Your task to perform on an android device: turn off location history Image 0: 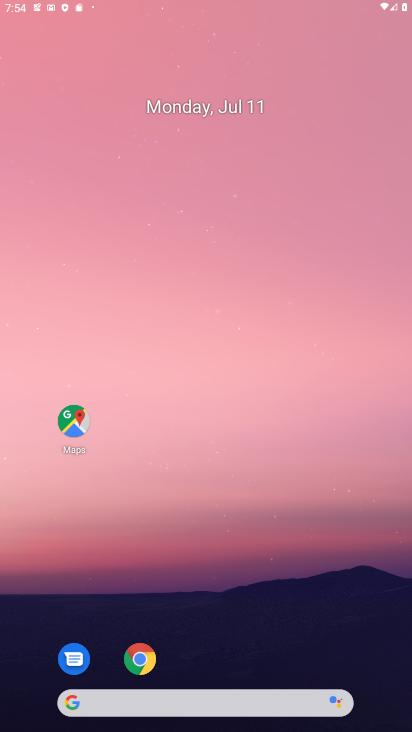
Step 0: drag from (241, 515) to (229, 16)
Your task to perform on an android device: turn off location history Image 1: 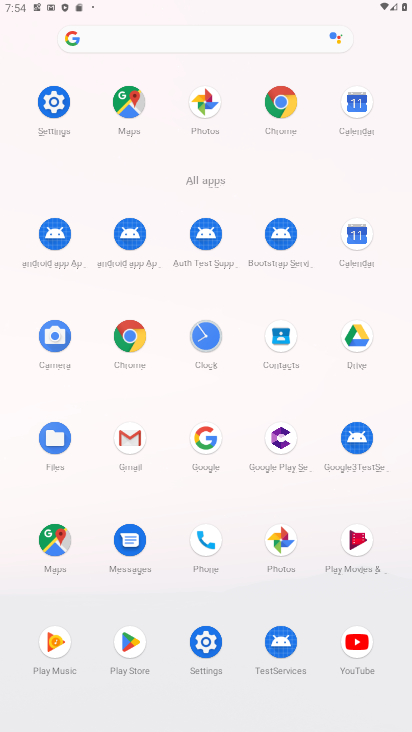
Step 1: click (202, 650)
Your task to perform on an android device: turn off location history Image 2: 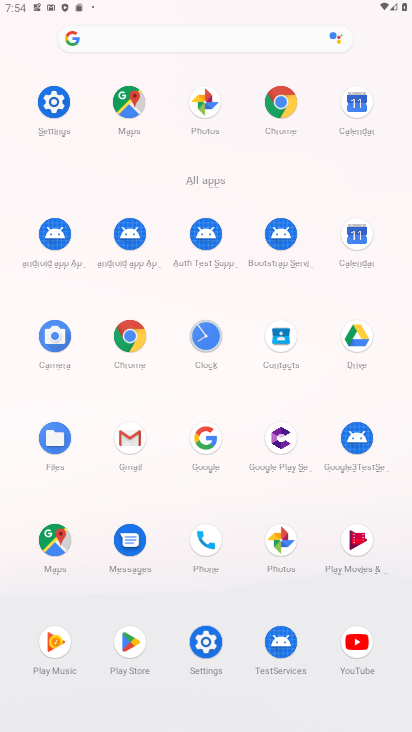
Step 2: click (203, 646)
Your task to perform on an android device: turn off location history Image 3: 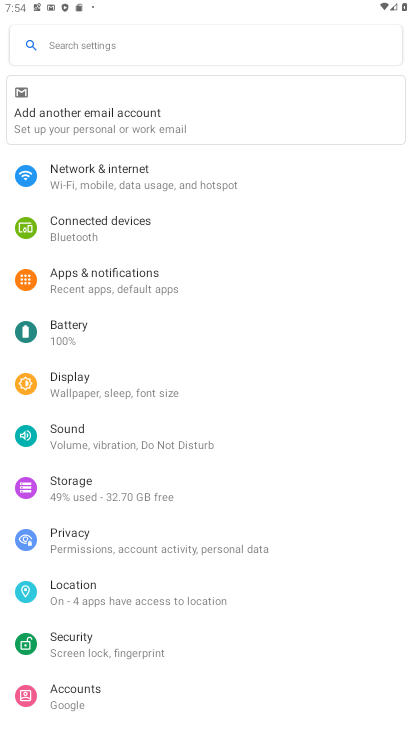
Step 3: drag from (89, 449) to (90, 97)
Your task to perform on an android device: turn off location history Image 4: 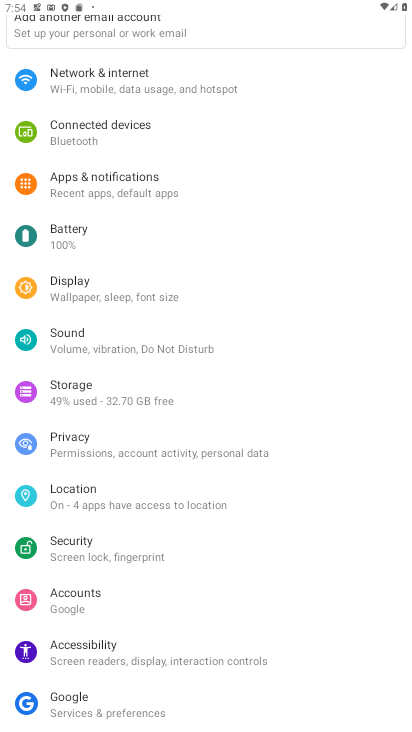
Step 4: drag from (100, 591) to (123, 216)
Your task to perform on an android device: turn off location history Image 5: 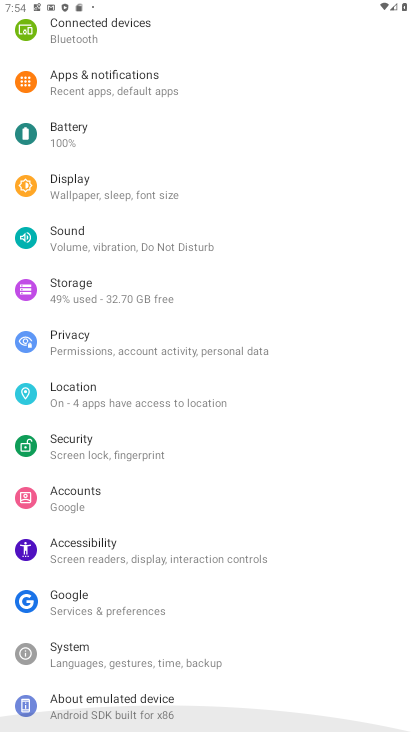
Step 5: drag from (172, 525) to (186, 260)
Your task to perform on an android device: turn off location history Image 6: 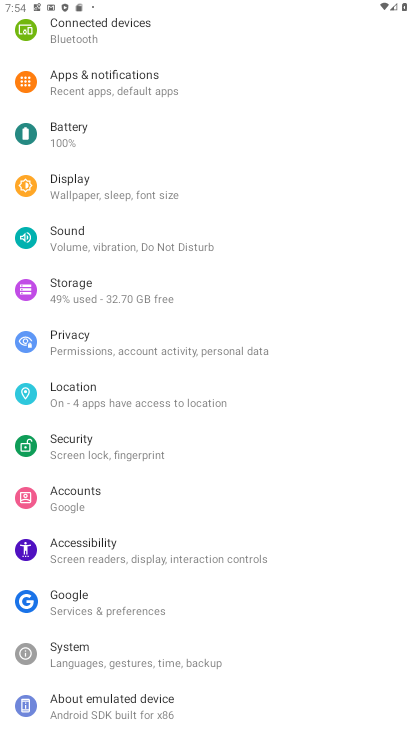
Step 6: click (84, 388)
Your task to perform on an android device: turn off location history Image 7: 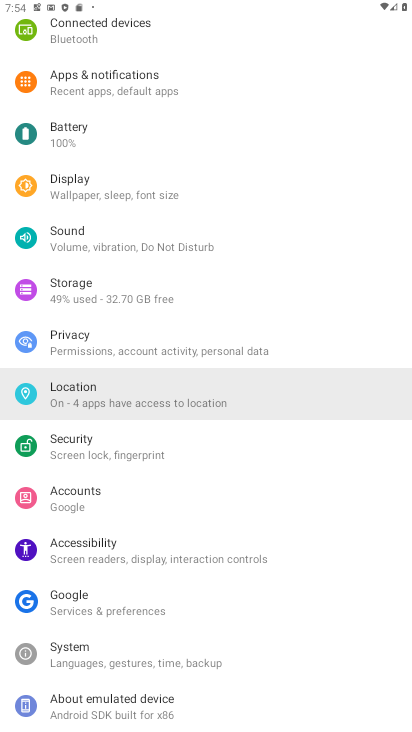
Step 7: click (89, 398)
Your task to perform on an android device: turn off location history Image 8: 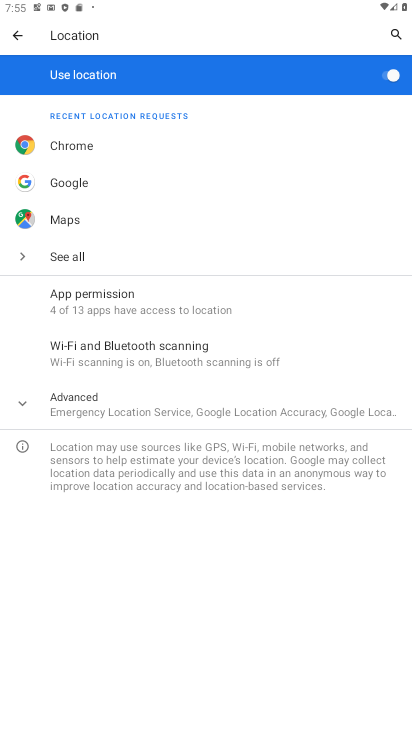
Step 8: click (82, 402)
Your task to perform on an android device: turn off location history Image 9: 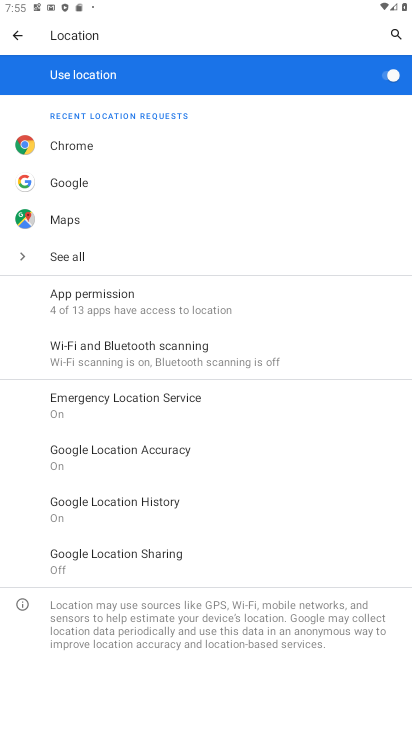
Step 9: click (120, 503)
Your task to perform on an android device: turn off location history Image 10: 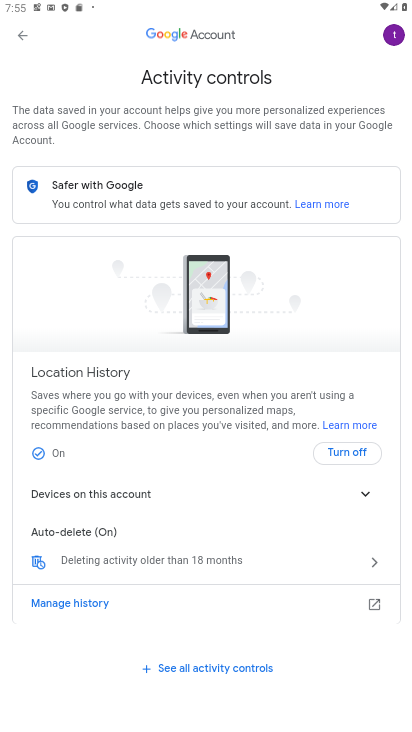
Step 10: drag from (243, 515) to (203, 110)
Your task to perform on an android device: turn off location history Image 11: 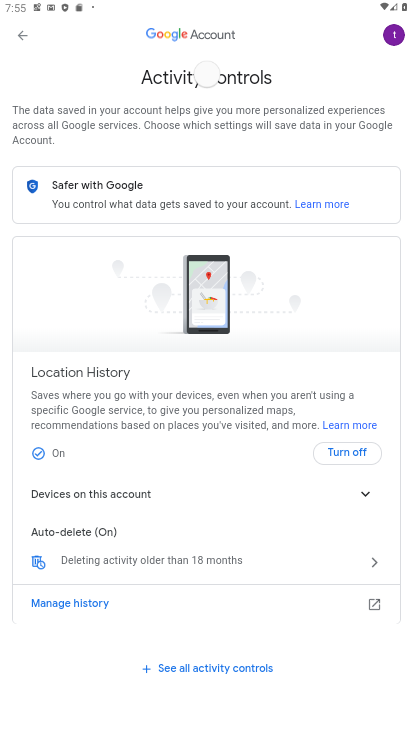
Step 11: drag from (178, 423) to (188, 219)
Your task to perform on an android device: turn off location history Image 12: 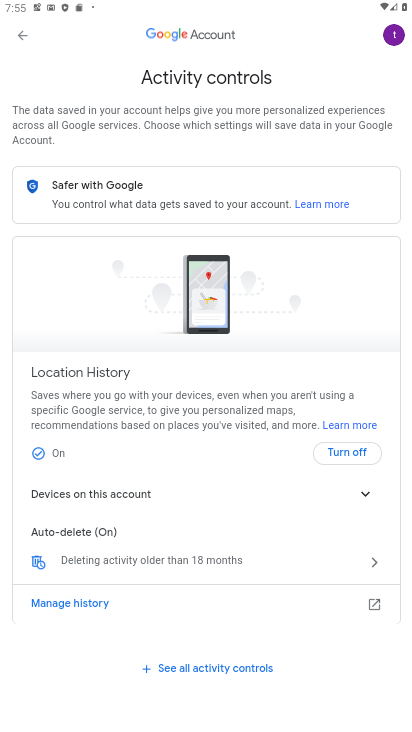
Step 12: click (364, 487)
Your task to perform on an android device: turn off location history Image 13: 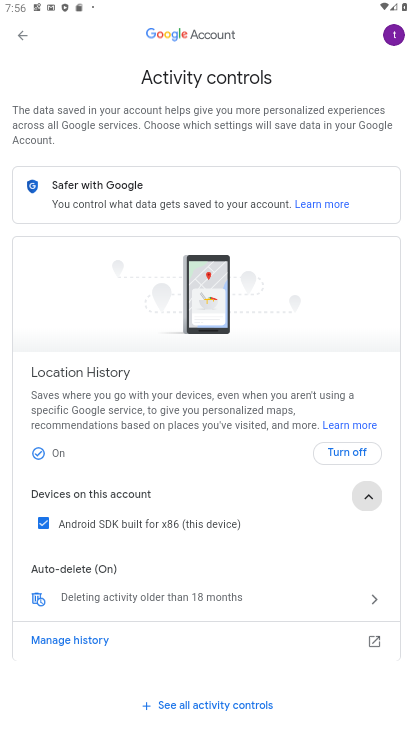
Step 13: click (105, 557)
Your task to perform on an android device: turn off location history Image 14: 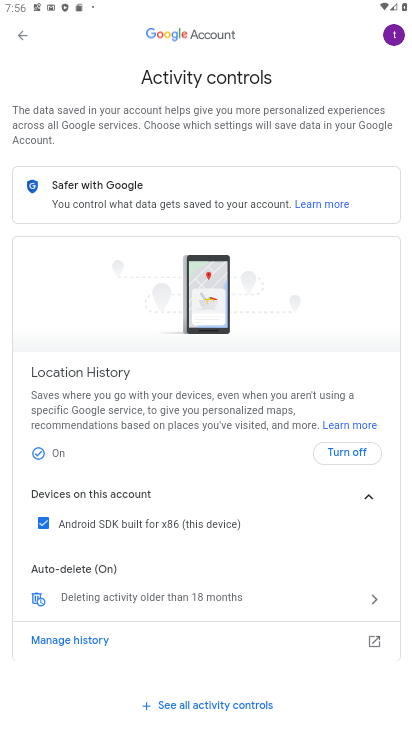
Step 14: click (108, 561)
Your task to perform on an android device: turn off location history Image 15: 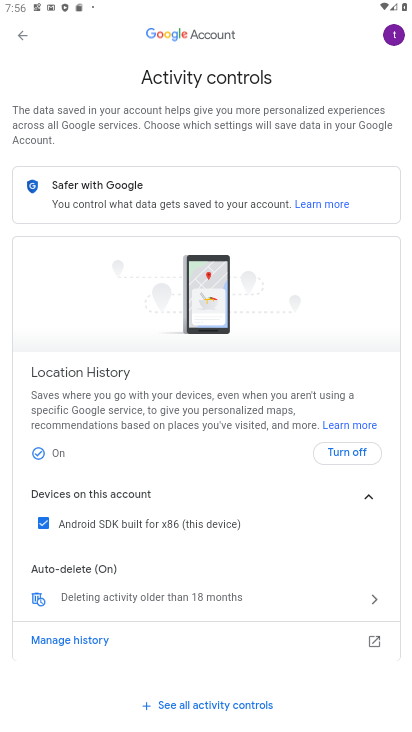
Step 15: click (87, 593)
Your task to perform on an android device: turn off location history Image 16: 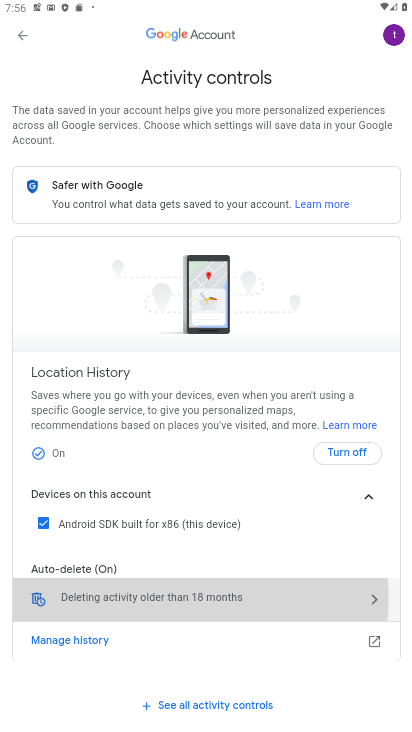
Step 16: click (89, 593)
Your task to perform on an android device: turn off location history Image 17: 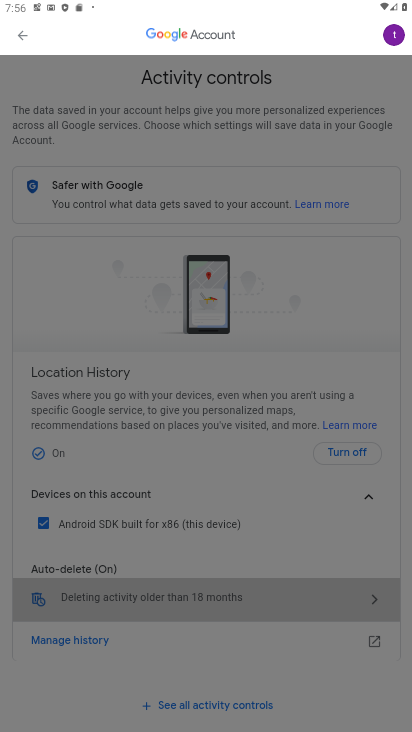
Step 17: click (98, 593)
Your task to perform on an android device: turn off location history Image 18: 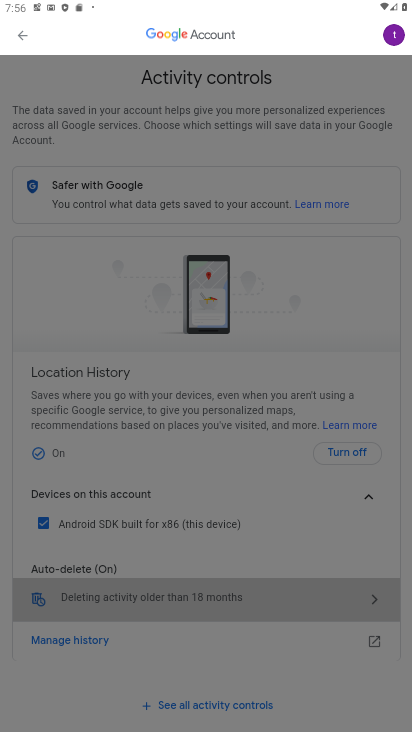
Step 18: click (97, 592)
Your task to perform on an android device: turn off location history Image 19: 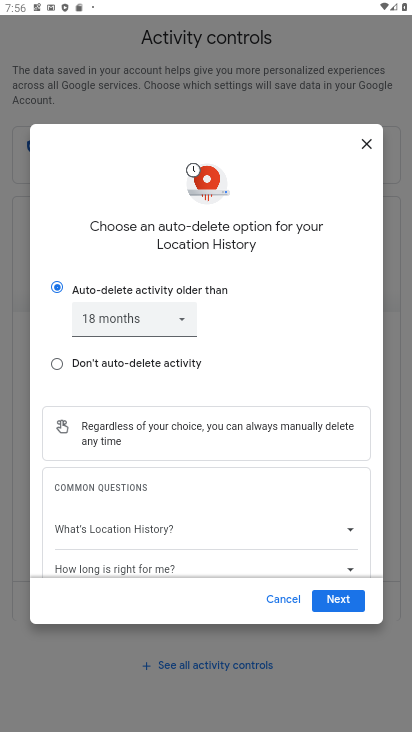
Step 19: click (331, 592)
Your task to perform on an android device: turn off location history Image 20: 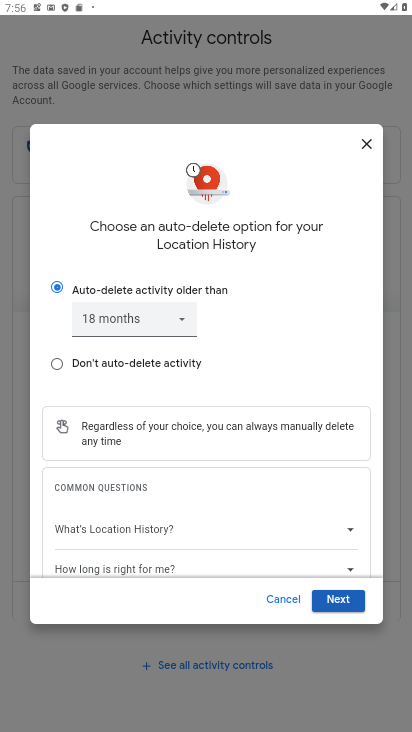
Step 20: click (336, 591)
Your task to perform on an android device: turn off location history Image 21: 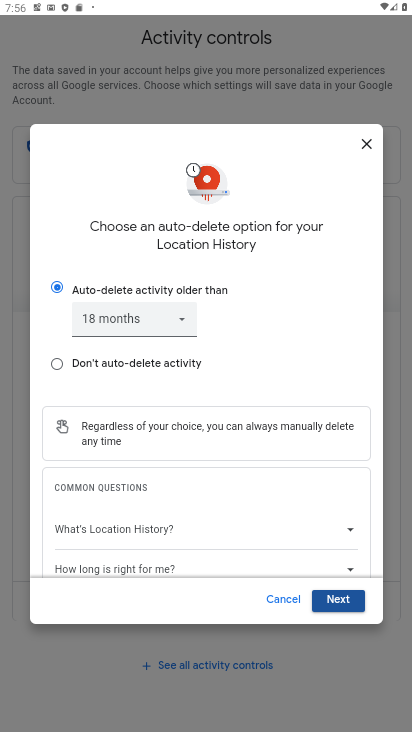
Step 21: click (336, 591)
Your task to perform on an android device: turn off location history Image 22: 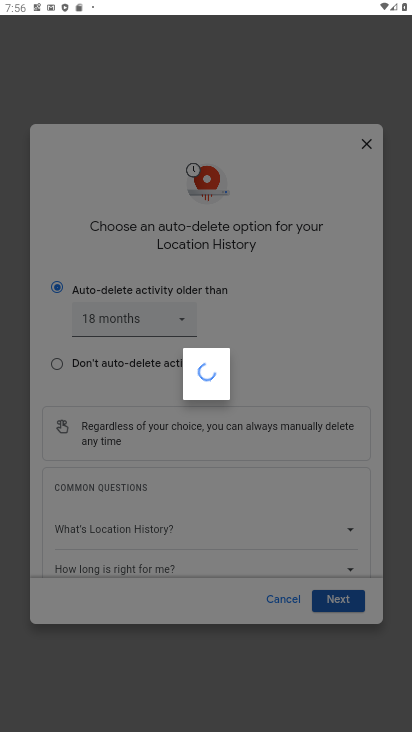
Step 22: click (342, 601)
Your task to perform on an android device: turn off location history Image 23: 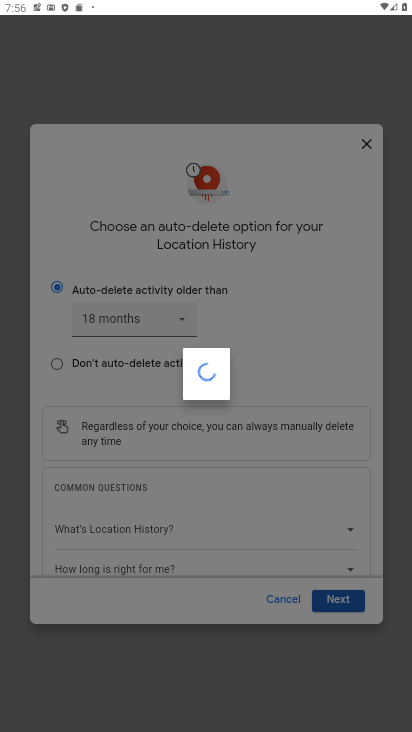
Step 23: click (344, 602)
Your task to perform on an android device: turn off location history Image 24: 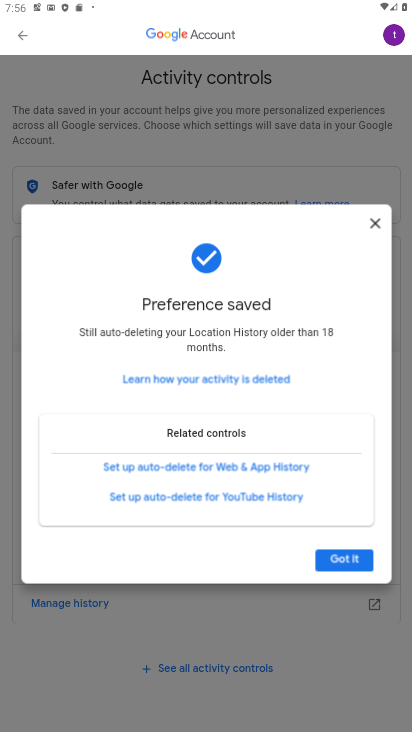
Step 24: click (344, 602)
Your task to perform on an android device: turn off location history Image 25: 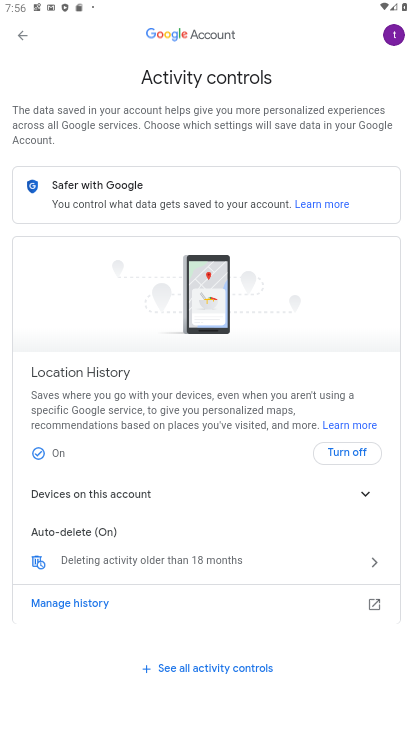
Step 25: click (344, 602)
Your task to perform on an android device: turn off location history Image 26: 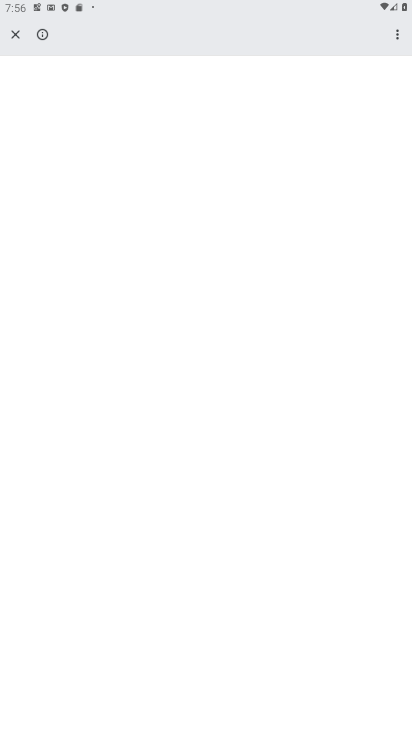
Step 26: task complete